Your task to perform on an android device: Set the phone to "Do not disturb". Image 0: 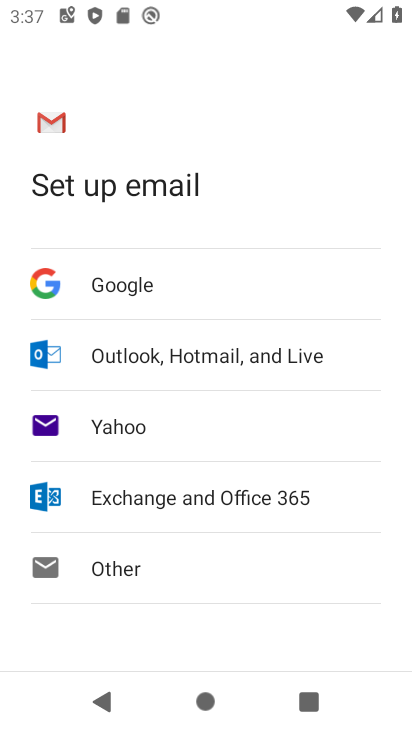
Step 0: press home button
Your task to perform on an android device: Set the phone to "Do not disturb". Image 1: 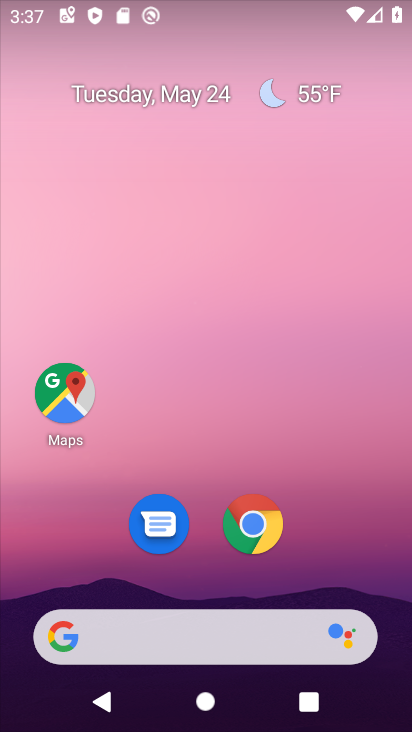
Step 1: drag from (255, 421) to (247, 46)
Your task to perform on an android device: Set the phone to "Do not disturb". Image 2: 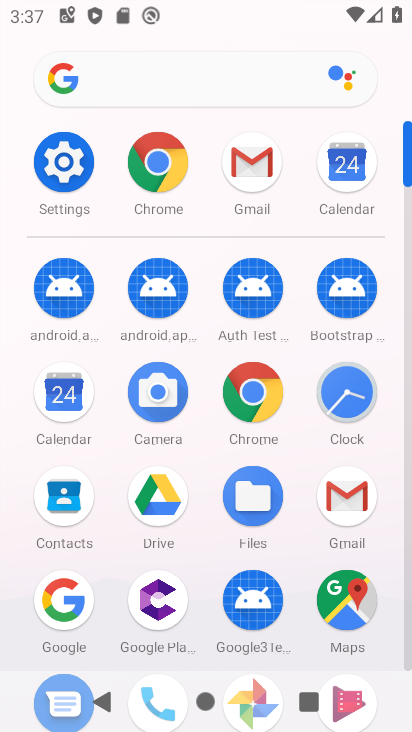
Step 2: click (73, 153)
Your task to perform on an android device: Set the phone to "Do not disturb". Image 3: 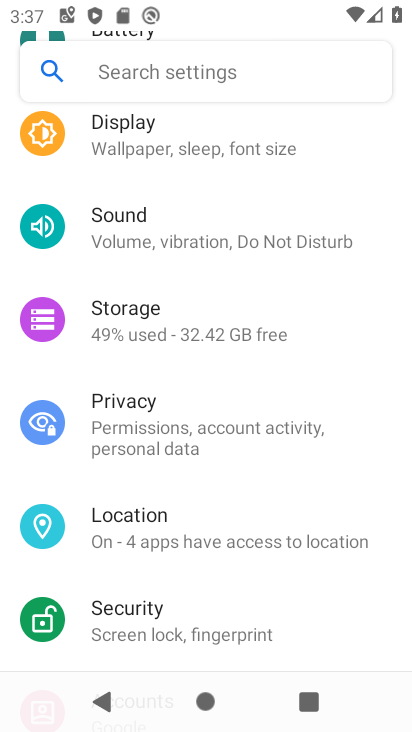
Step 3: click (248, 244)
Your task to perform on an android device: Set the phone to "Do not disturb". Image 4: 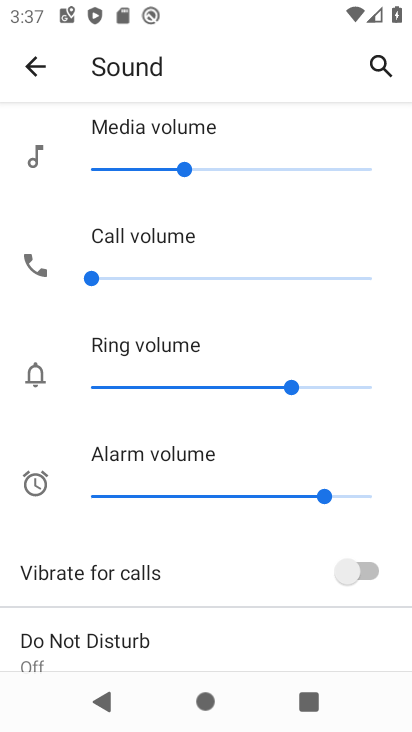
Step 4: click (117, 638)
Your task to perform on an android device: Set the phone to "Do not disturb". Image 5: 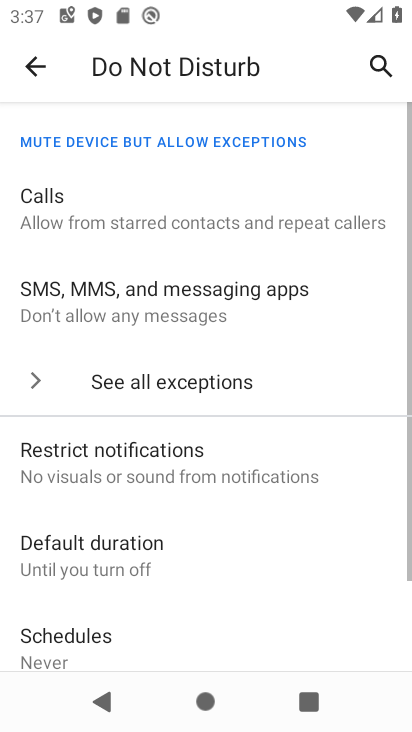
Step 5: drag from (178, 529) to (224, 238)
Your task to perform on an android device: Set the phone to "Do not disturb". Image 6: 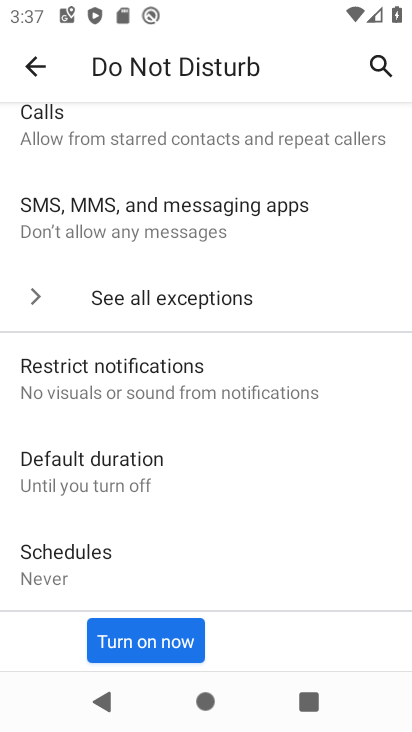
Step 6: click (172, 634)
Your task to perform on an android device: Set the phone to "Do not disturb". Image 7: 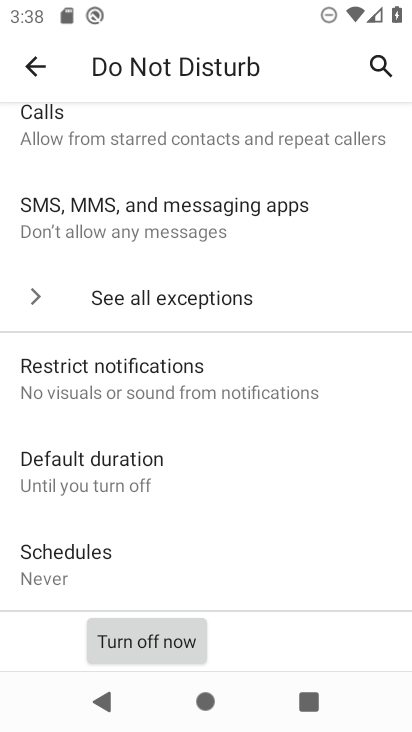
Step 7: click (37, 67)
Your task to perform on an android device: Set the phone to "Do not disturb". Image 8: 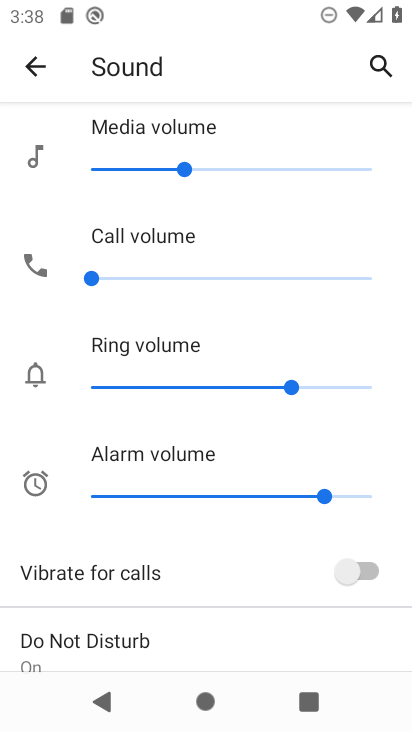
Step 8: task complete